Your task to perform on an android device: Go to Maps Image 0: 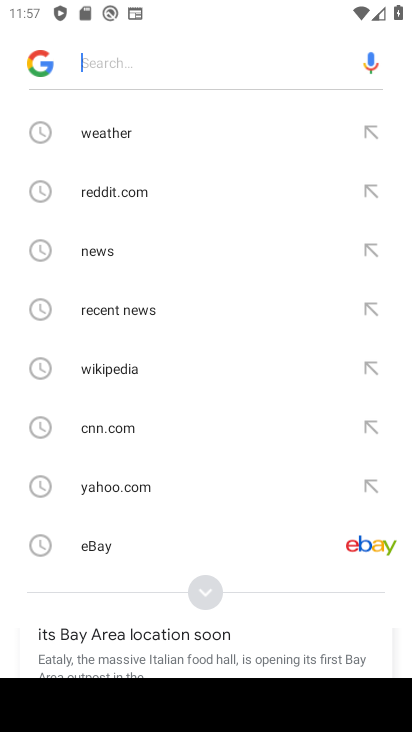
Step 0: press home button
Your task to perform on an android device: Go to Maps Image 1: 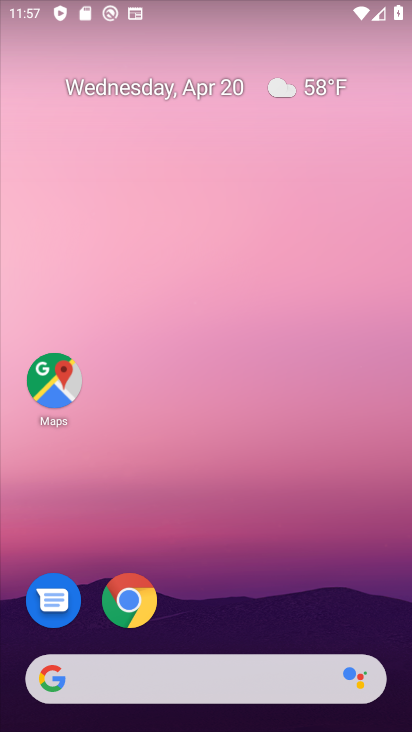
Step 1: click (47, 378)
Your task to perform on an android device: Go to Maps Image 2: 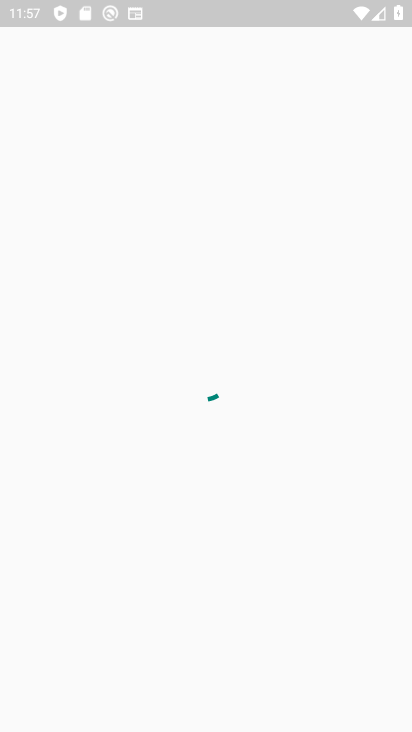
Step 2: task complete